Your task to perform on an android device: Is it going to rain tomorrow? Image 0: 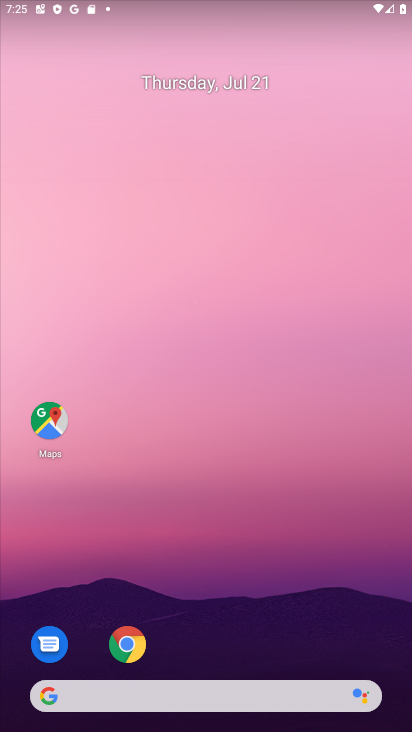
Step 0: click (261, 688)
Your task to perform on an android device: Is it going to rain tomorrow? Image 1: 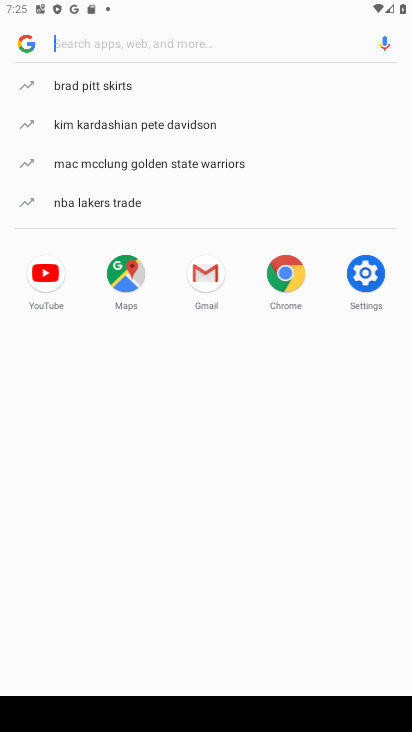
Step 1: type "Is it going to rain tomorrow?"
Your task to perform on an android device: Is it going to rain tomorrow? Image 2: 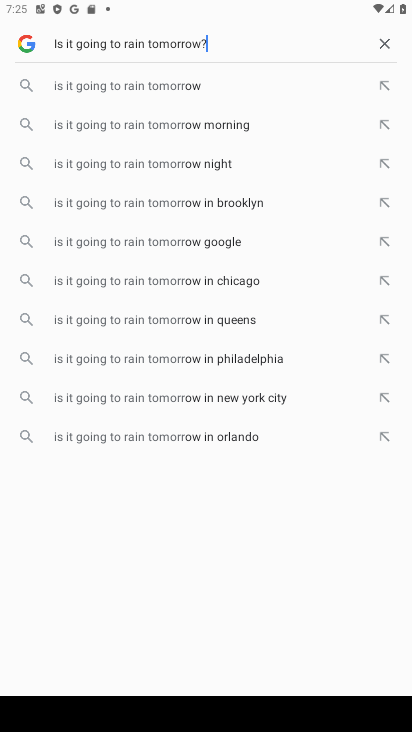
Step 2: press enter
Your task to perform on an android device: Is it going to rain tomorrow? Image 3: 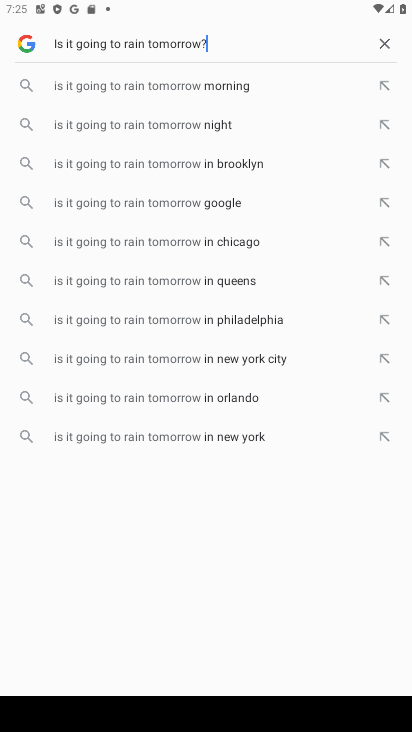
Step 3: type ""
Your task to perform on an android device: Is it going to rain tomorrow? Image 4: 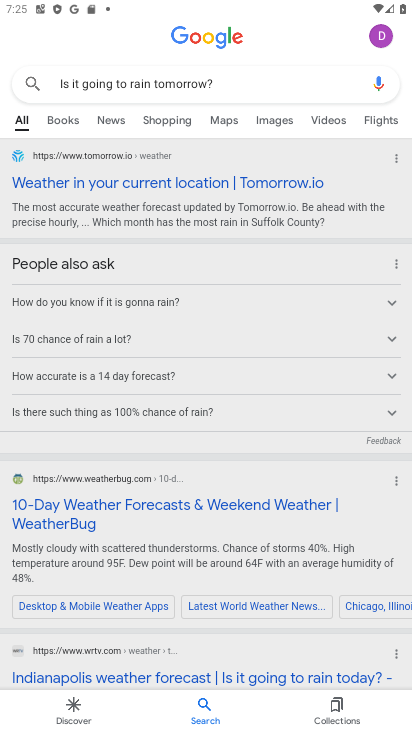
Step 4: task complete